Your task to perform on an android device: Go to eBay Image 0: 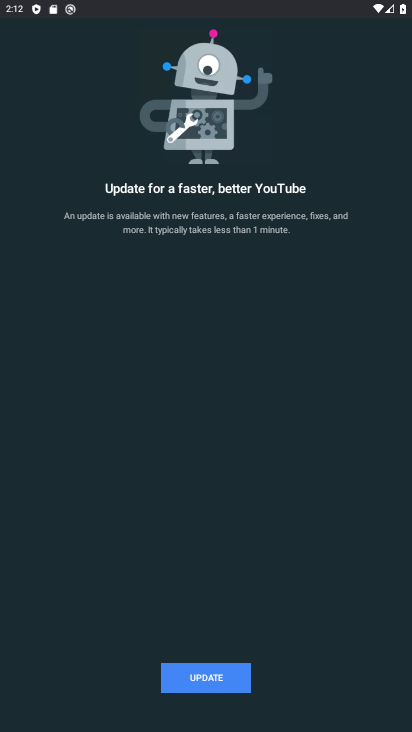
Step 0: press home button
Your task to perform on an android device: Go to eBay Image 1: 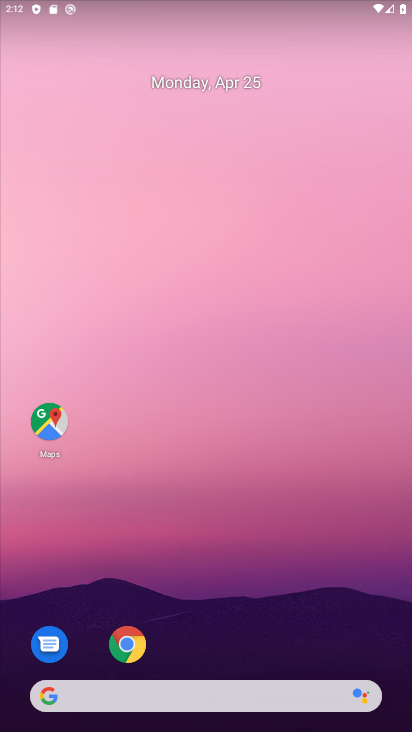
Step 1: click (139, 657)
Your task to perform on an android device: Go to eBay Image 2: 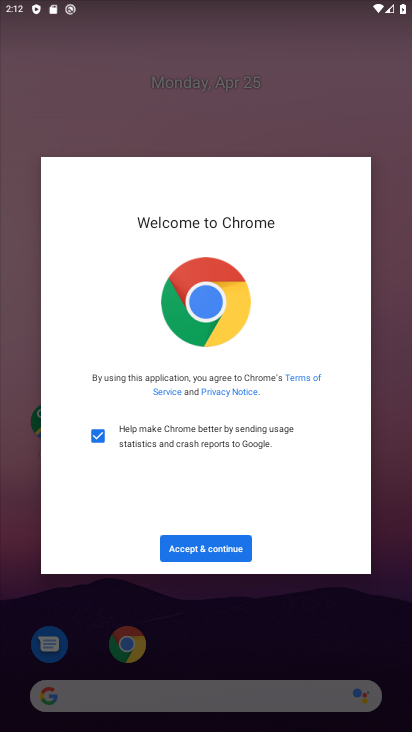
Step 2: click (201, 549)
Your task to perform on an android device: Go to eBay Image 3: 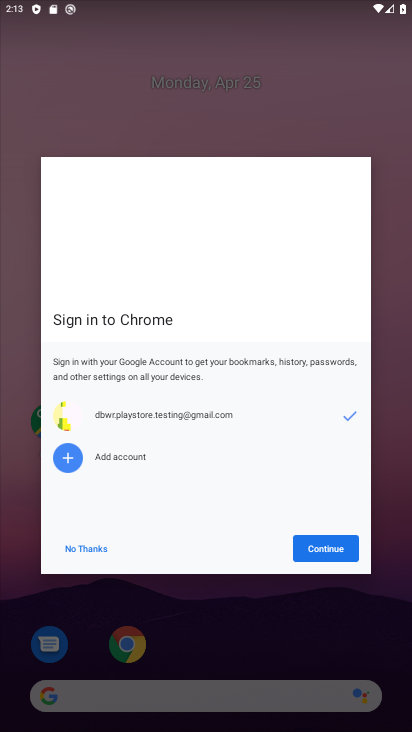
Step 3: click (313, 545)
Your task to perform on an android device: Go to eBay Image 4: 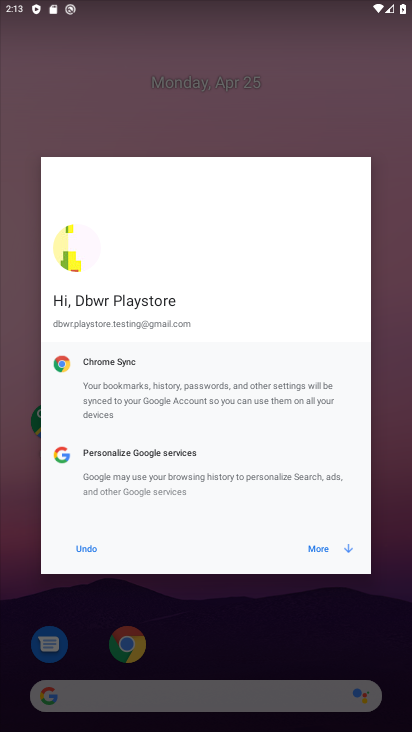
Step 4: click (313, 545)
Your task to perform on an android device: Go to eBay Image 5: 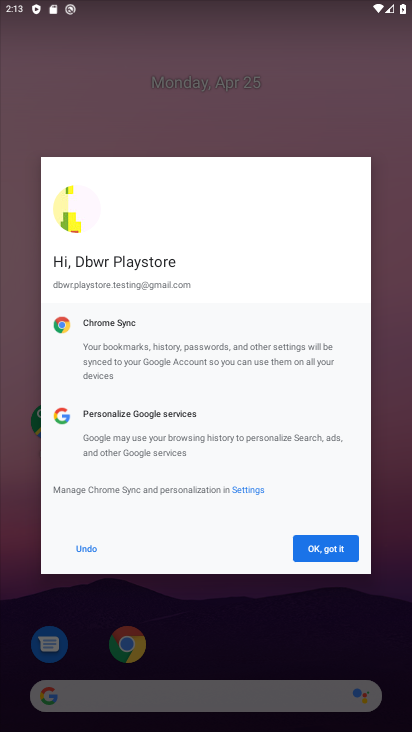
Step 5: click (313, 545)
Your task to perform on an android device: Go to eBay Image 6: 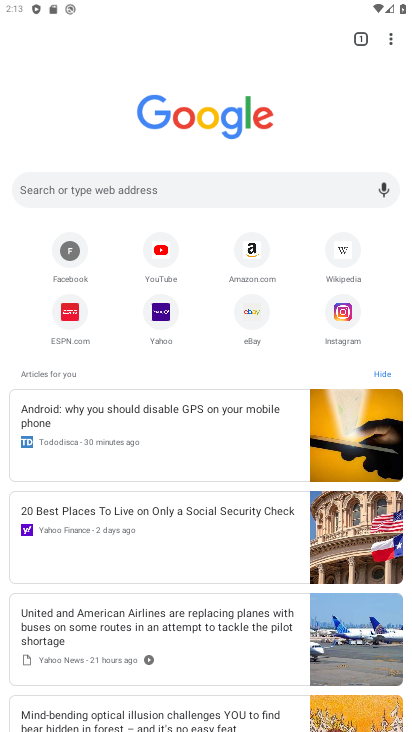
Step 6: click (256, 321)
Your task to perform on an android device: Go to eBay Image 7: 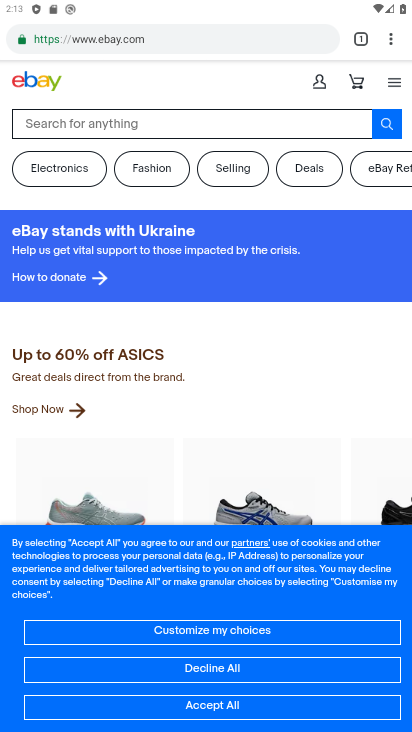
Step 7: task complete